Your task to perform on an android device: turn off notifications in google photos Image 0: 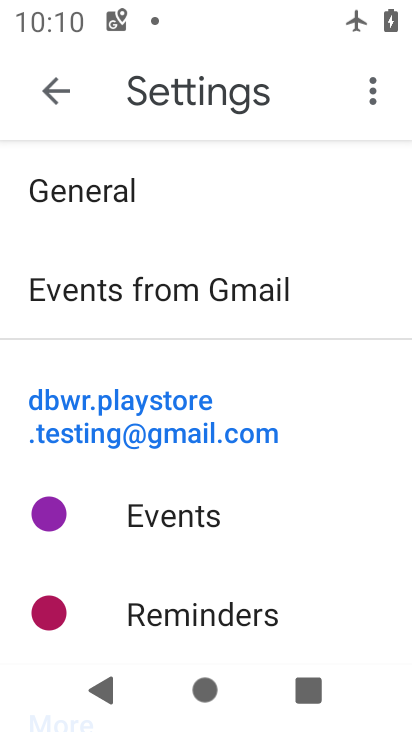
Step 0: press home button
Your task to perform on an android device: turn off notifications in google photos Image 1: 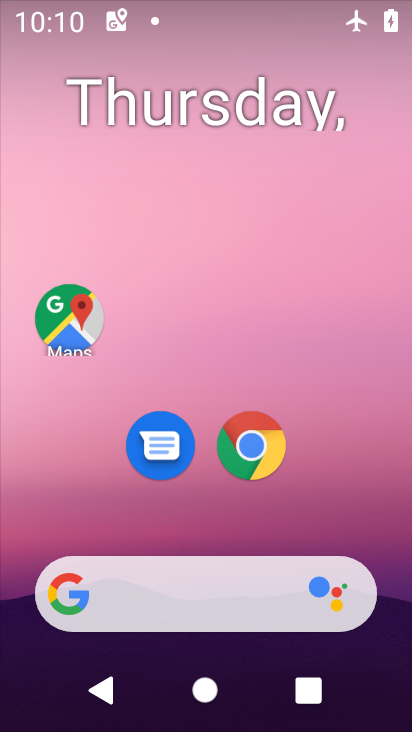
Step 1: drag from (174, 563) to (35, 40)
Your task to perform on an android device: turn off notifications in google photos Image 2: 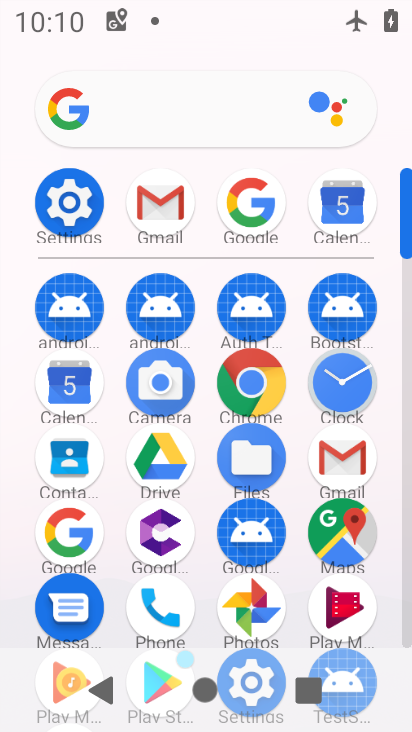
Step 2: click (262, 605)
Your task to perform on an android device: turn off notifications in google photos Image 3: 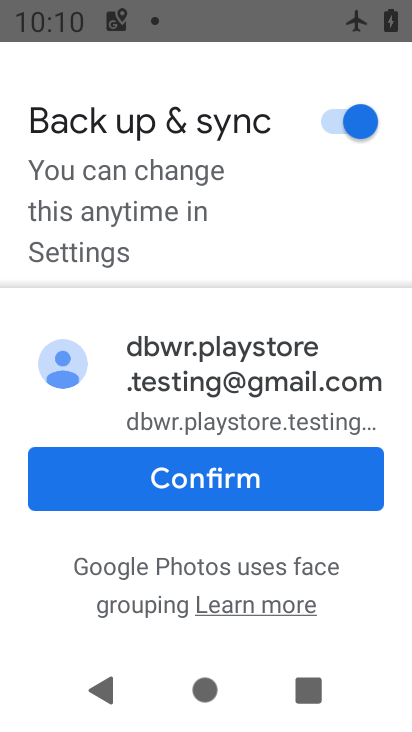
Step 3: click (221, 489)
Your task to perform on an android device: turn off notifications in google photos Image 4: 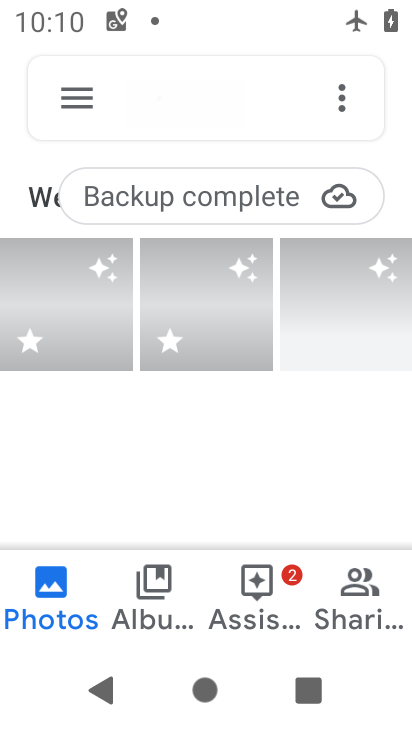
Step 4: click (66, 93)
Your task to perform on an android device: turn off notifications in google photos Image 5: 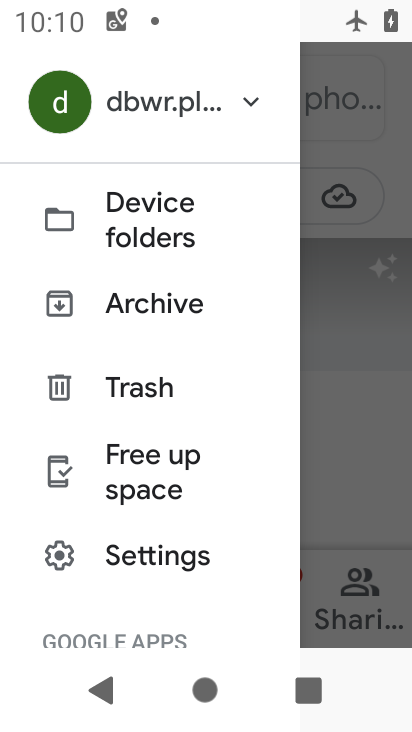
Step 5: click (155, 556)
Your task to perform on an android device: turn off notifications in google photos Image 6: 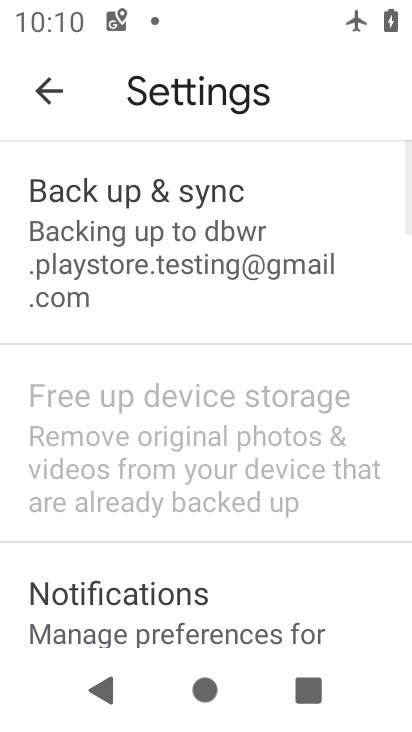
Step 6: click (164, 217)
Your task to perform on an android device: turn off notifications in google photos Image 7: 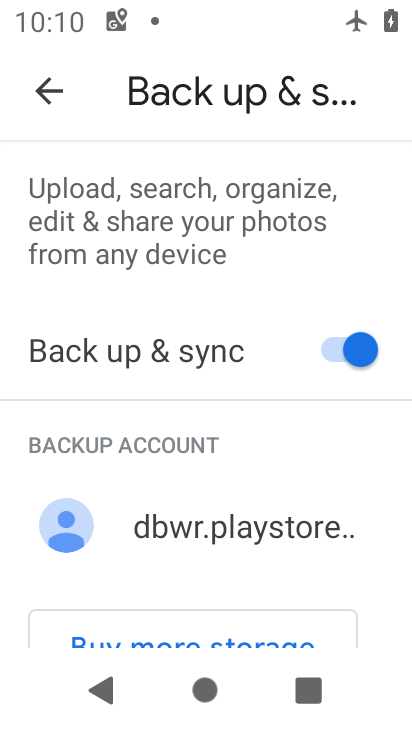
Step 7: click (51, 86)
Your task to perform on an android device: turn off notifications in google photos Image 8: 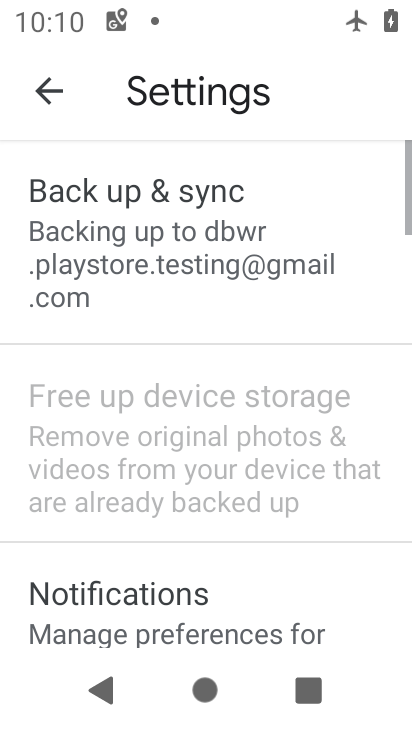
Step 8: click (167, 603)
Your task to perform on an android device: turn off notifications in google photos Image 9: 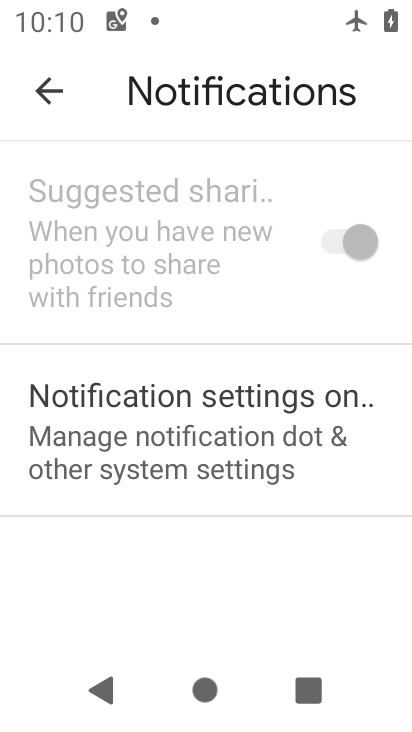
Step 9: click (148, 418)
Your task to perform on an android device: turn off notifications in google photos Image 10: 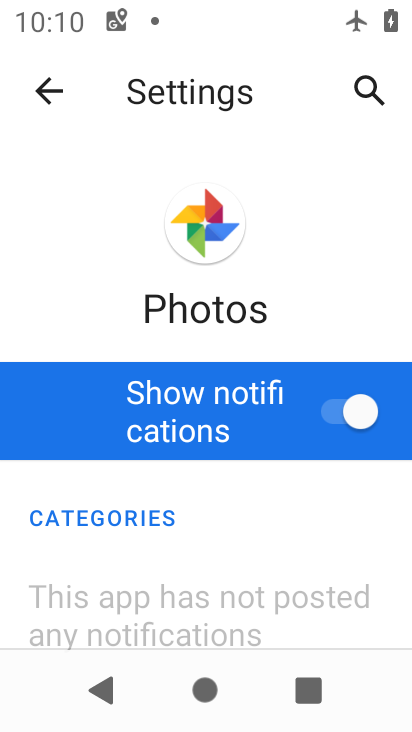
Step 10: click (336, 412)
Your task to perform on an android device: turn off notifications in google photos Image 11: 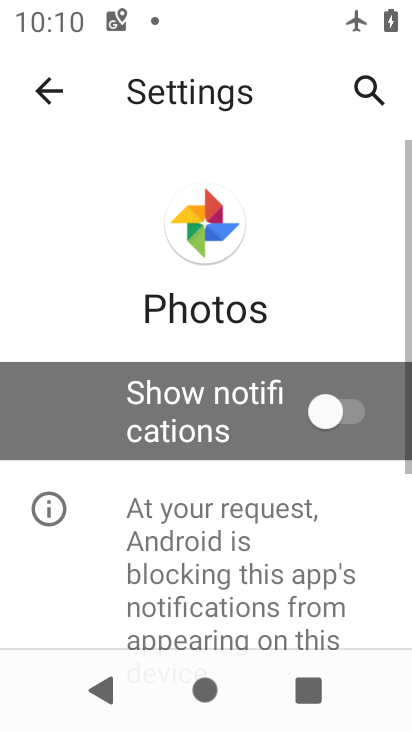
Step 11: task complete